Your task to perform on an android device: Open location settings Image 0: 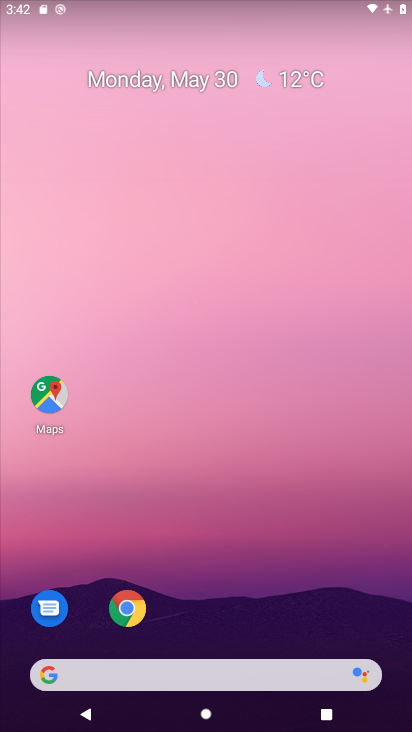
Step 0: drag from (220, 522) to (175, 89)
Your task to perform on an android device: Open location settings Image 1: 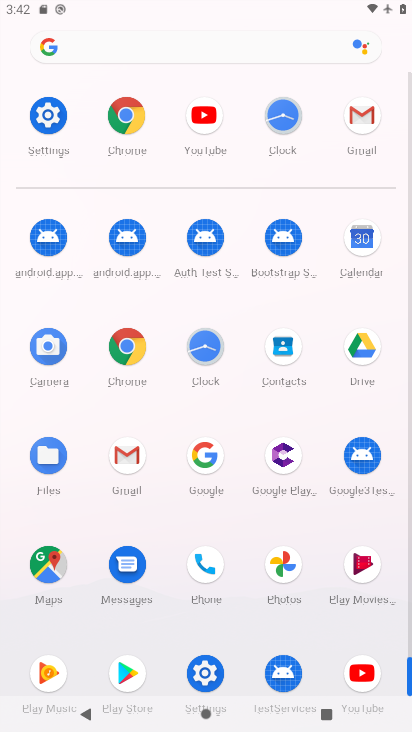
Step 1: click (210, 675)
Your task to perform on an android device: Open location settings Image 2: 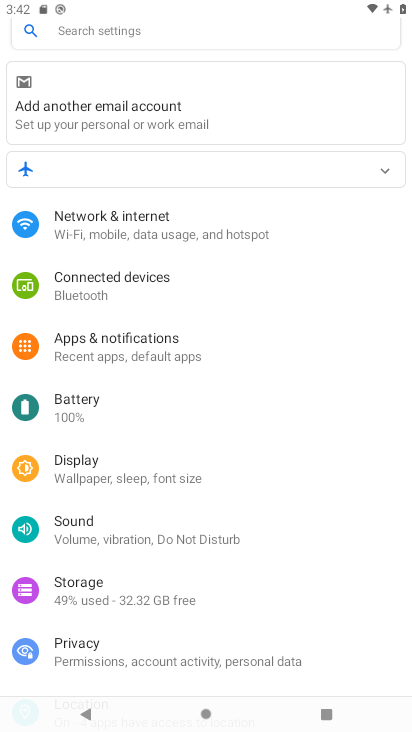
Step 2: drag from (229, 549) to (240, 155)
Your task to perform on an android device: Open location settings Image 3: 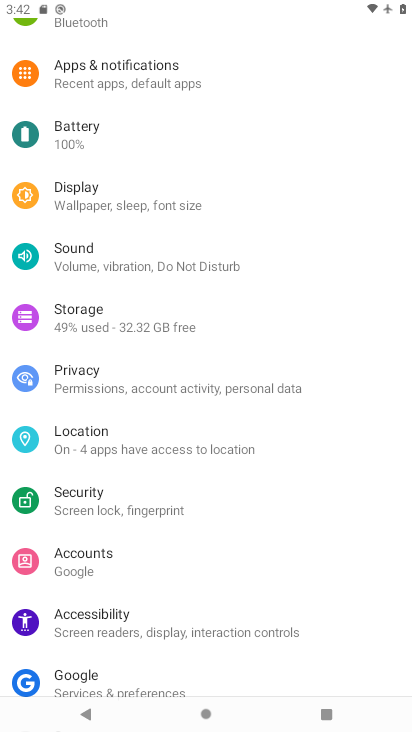
Step 3: click (133, 441)
Your task to perform on an android device: Open location settings Image 4: 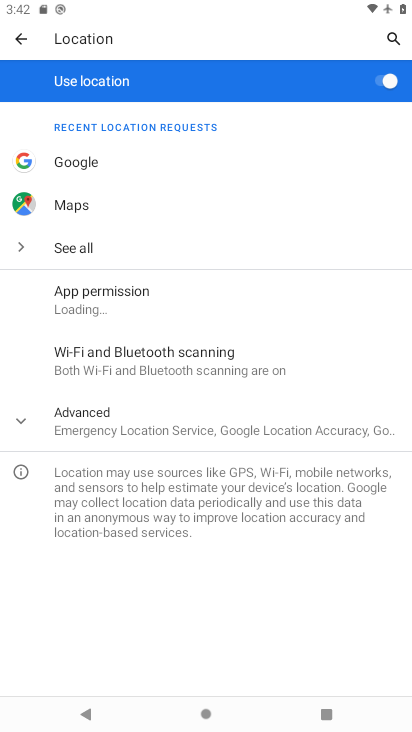
Step 4: task complete